Your task to perform on an android device: read, delete, or share a saved page in the chrome app Image 0: 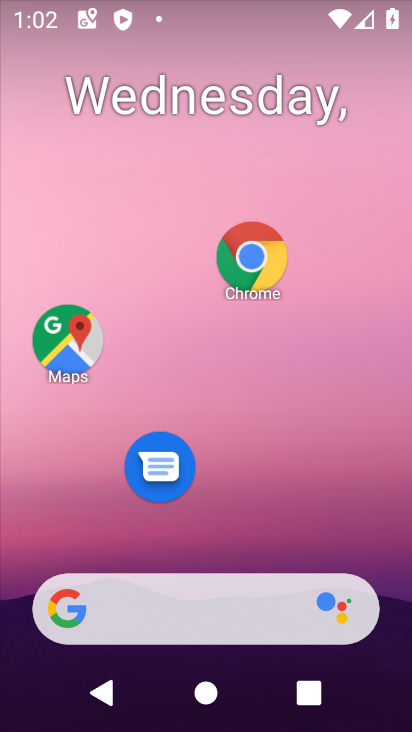
Step 0: click (249, 252)
Your task to perform on an android device: read, delete, or share a saved page in the chrome app Image 1: 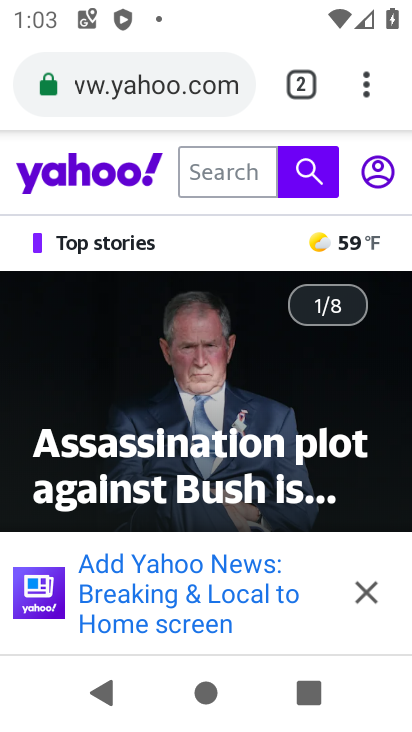
Step 1: drag from (349, 95) to (111, 538)
Your task to perform on an android device: read, delete, or share a saved page in the chrome app Image 2: 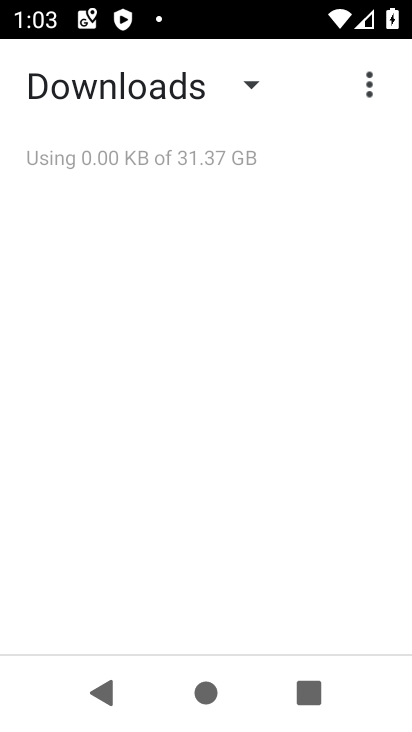
Step 2: click (229, 83)
Your task to perform on an android device: read, delete, or share a saved page in the chrome app Image 3: 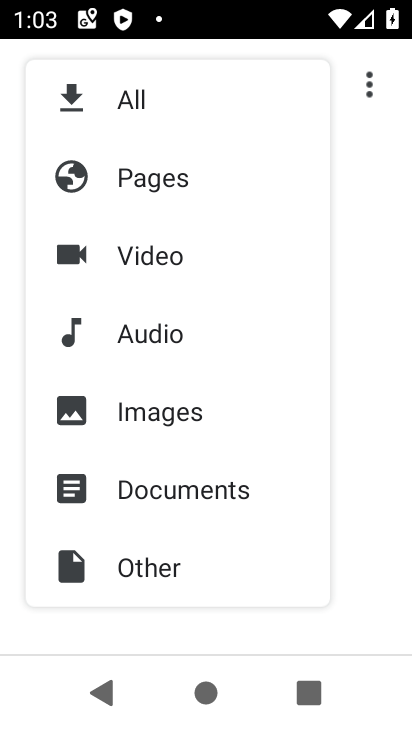
Step 3: click (144, 184)
Your task to perform on an android device: read, delete, or share a saved page in the chrome app Image 4: 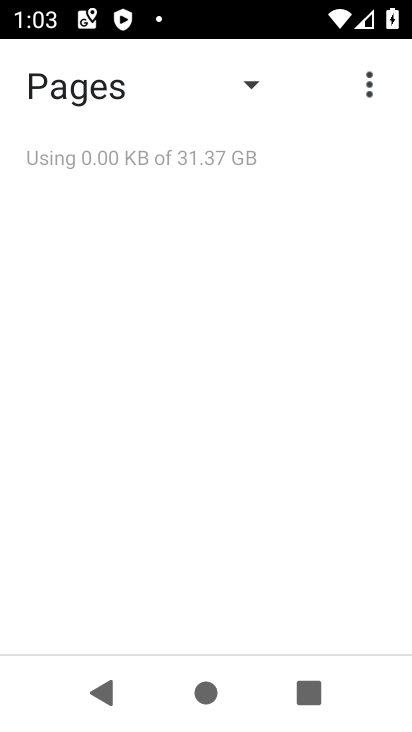
Step 4: task complete